Your task to perform on an android device: Go to Android settings Image 0: 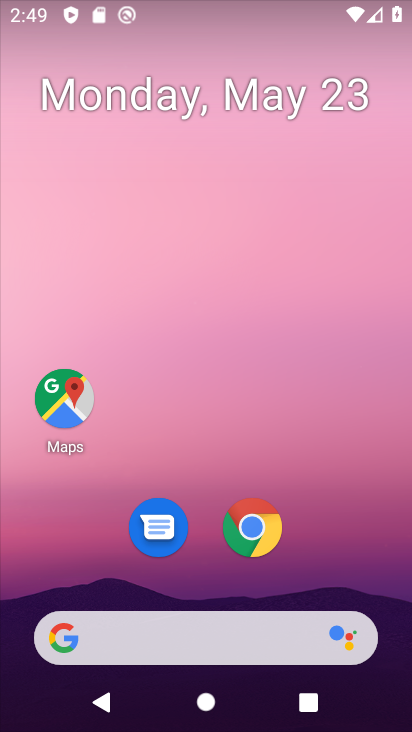
Step 0: drag from (188, 672) to (153, 155)
Your task to perform on an android device: Go to Android settings Image 1: 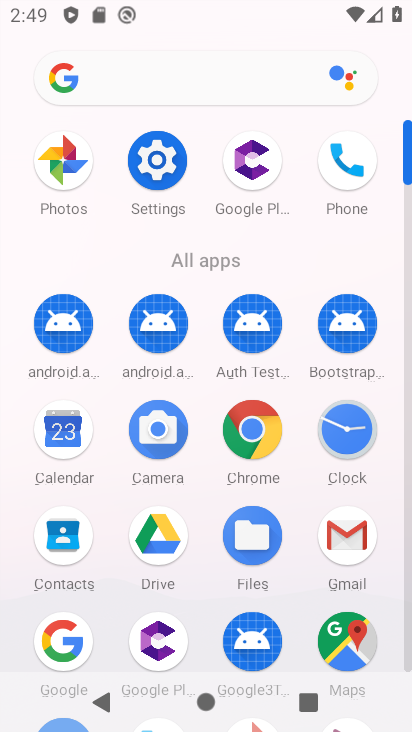
Step 1: click (157, 150)
Your task to perform on an android device: Go to Android settings Image 2: 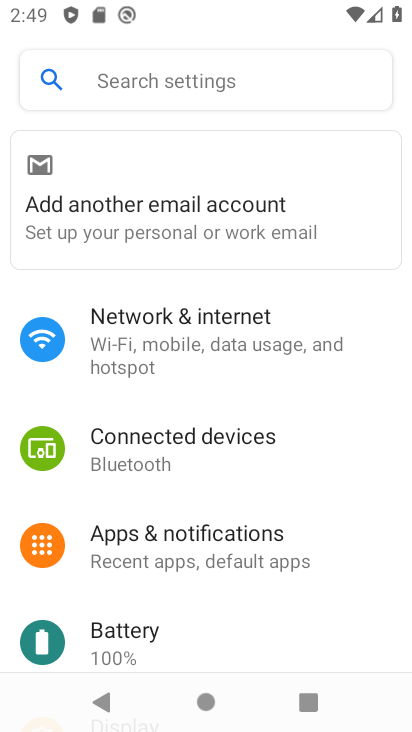
Step 2: click (156, 80)
Your task to perform on an android device: Go to Android settings Image 3: 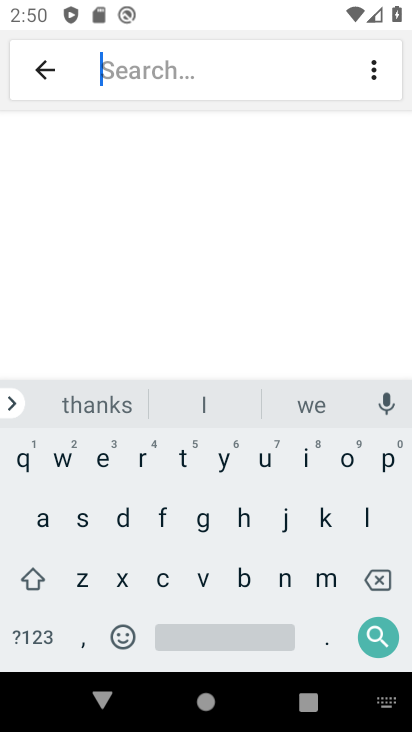
Step 3: click (40, 511)
Your task to perform on an android device: Go to Android settings Image 4: 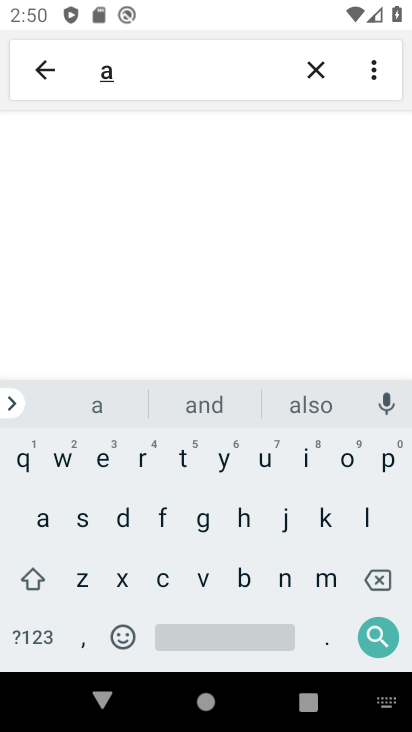
Step 4: click (288, 589)
Your task to perform on an android device: Go to Android settings Image 5: 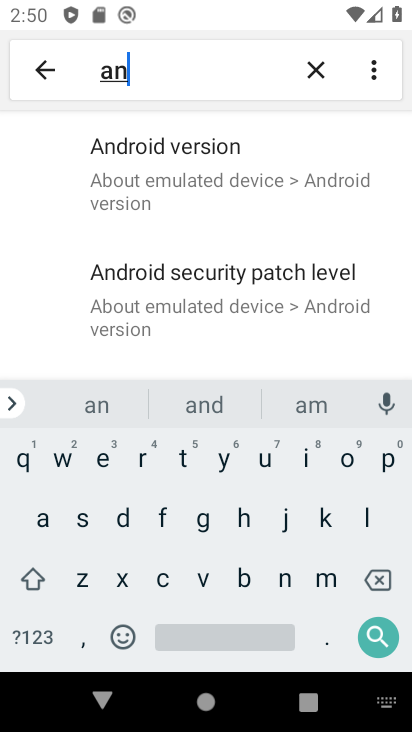
Step 5: click (185, 171)
Your task to perform on an android device: Go to Android settings Image 6: 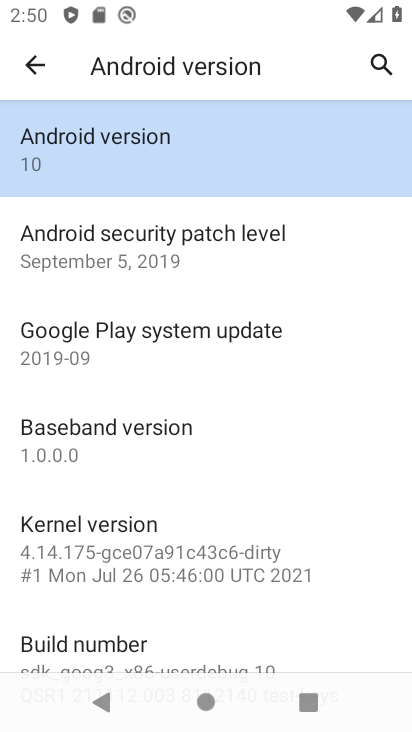
Step 6: click (186, 165)
Your task to perform on an android device: Go to Android settings Image 7: 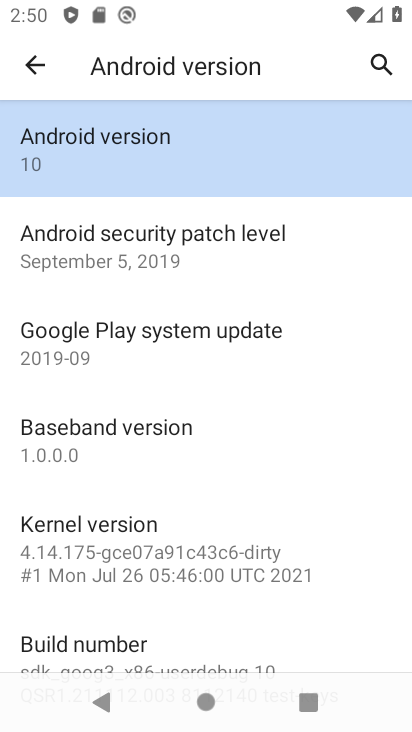
Step 7: task complete